Your task to perform on an android device: Open calendar and show me the fourth week of next month Image 0: 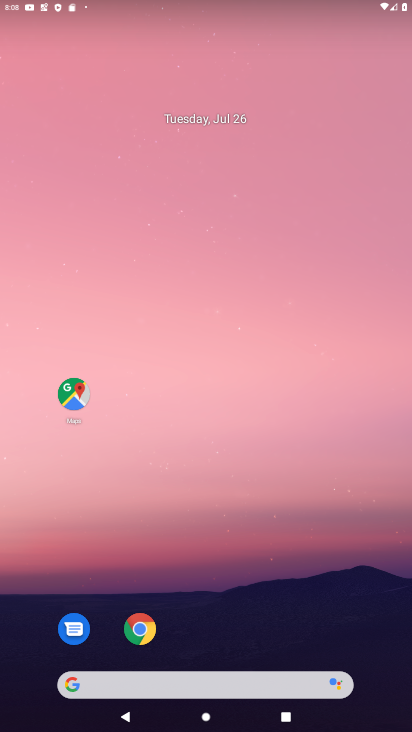
Step 0: press home button
Your task to perform on an android device: Open calendar and show me the fourth week of next month Image 1: 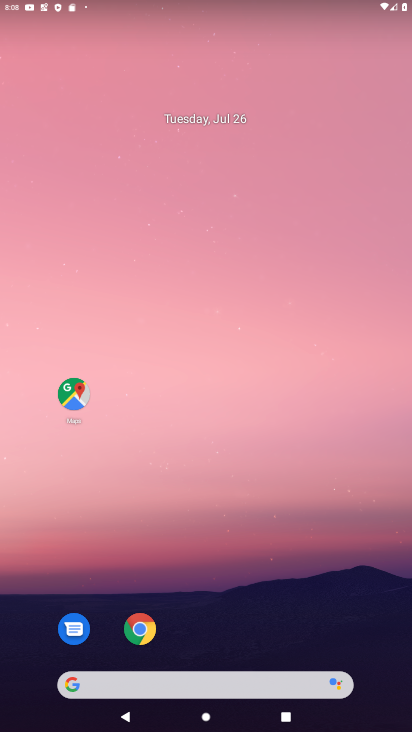
Step 1: drag from (205, 652) to (206, 0)
Your task to perform on an android device: Open calendar and show me the fourth week of next month Image 2: 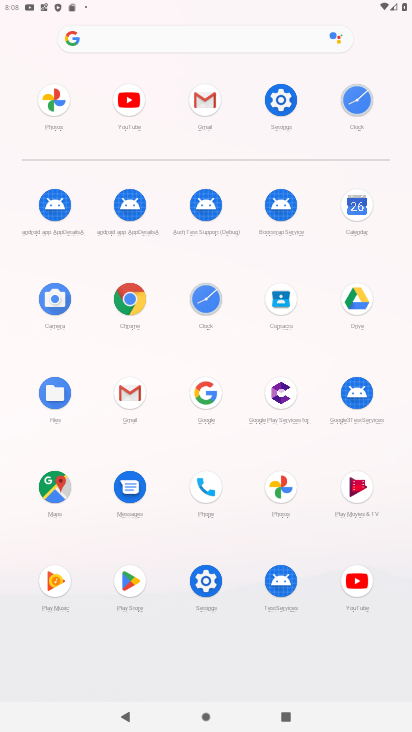
Step 2: click (358, 206)
Your task to perform on an android device: Open calendar and show me the fourth week of next month Image 3: 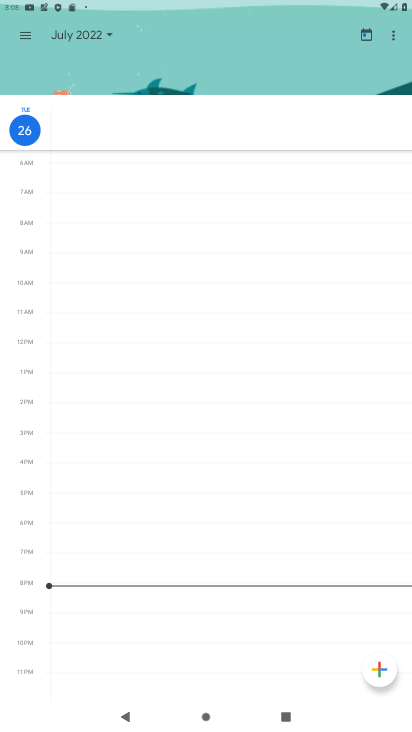
Step 3: click (25, 34)
Your task to perform on an android device: Open calendar and show me the fourth week of next month Image 4: 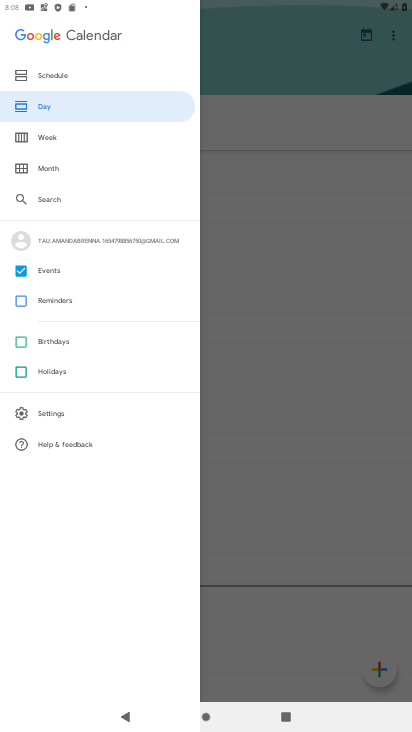
Step 4: click (36, 136)
Your task to perform on an android device: Open calendar and show me the fourth week of next month Image 5: 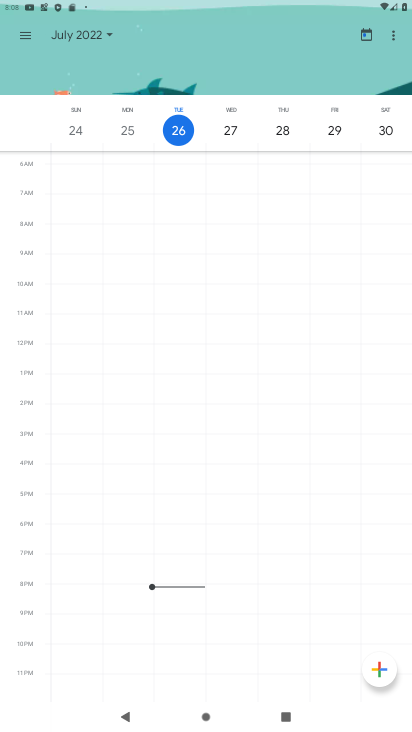
Step 5: click (107, 33)
Your task to perform on an android device: Open calendar and show me the fourth week of next month Image 6: 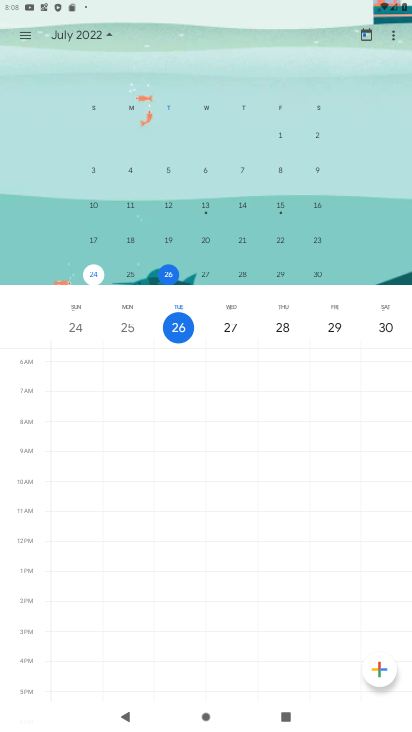
Step 6: drag from (330, 205) to (8, 204)
Your task to perform on an android device: Open calendar and show me the fourth week of next month Image 7: 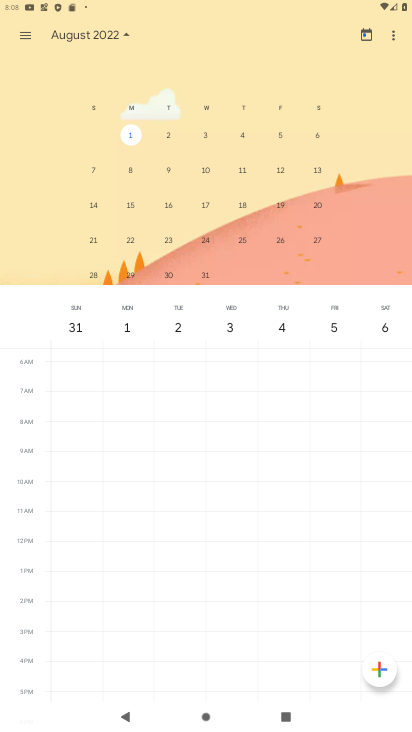
Step 7: click (95, 240)
Your task to perform on an android device: Open calendar and show me the fourth week of next month Image 8: 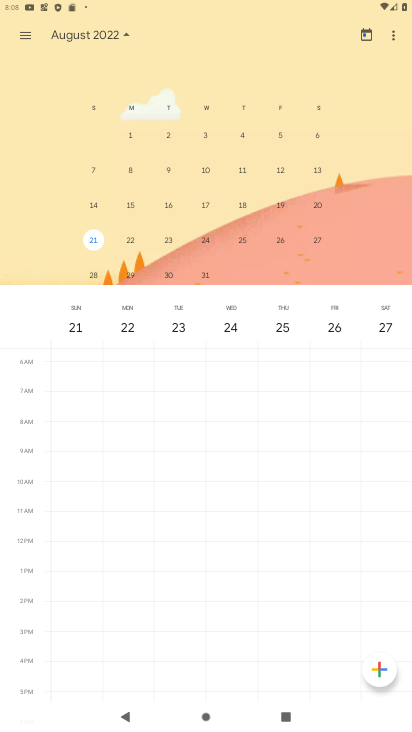
Step 8: click (125, 32)
Your task to perform on an android device: Open calendar and show me the fourth week of next month Image 9: 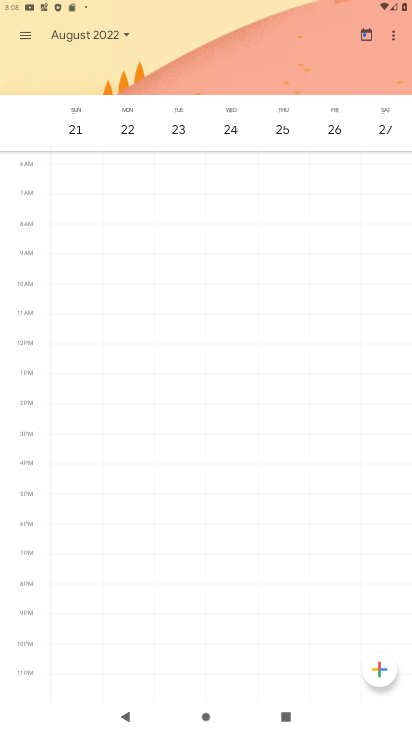
Step 9: task complete